Your task to perform on an android device: turn off airplane mode Image 0: 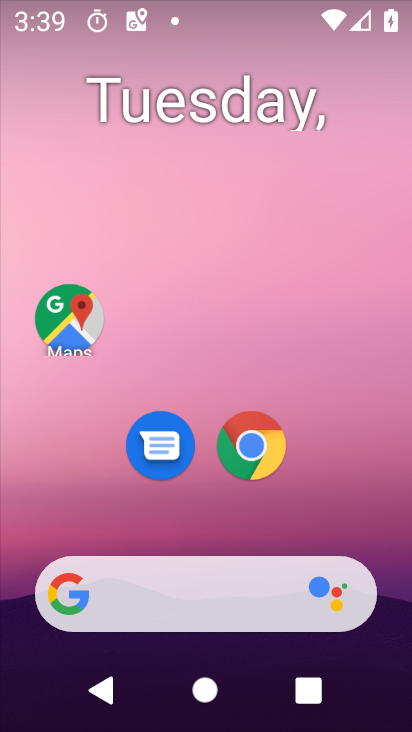
Step 0: drag from (204, 543) to (193, 18)
Your task to perform on an android device: turn off airplane mode Image 1: 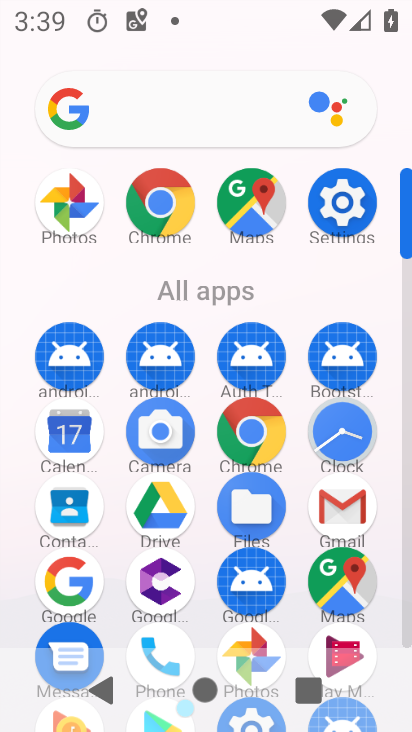
Step 1: click (333, 198)
Your task to perform on an android device: turn off airplane mode Image 2: 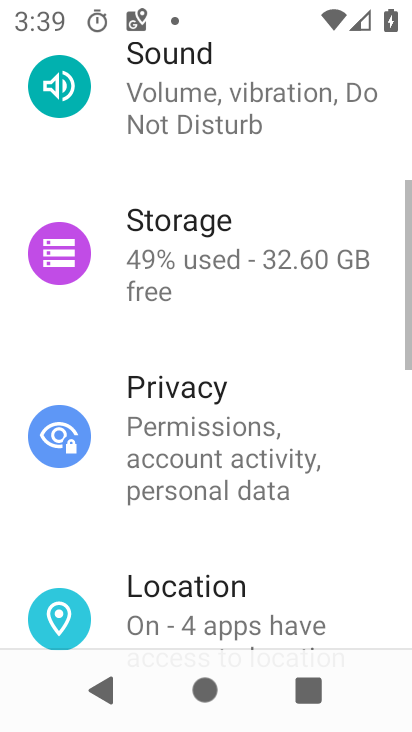
Step 2: drag from (349, 187) to (294, 600)
Your task to perform on an android device: turn off airplane mode Image 3: 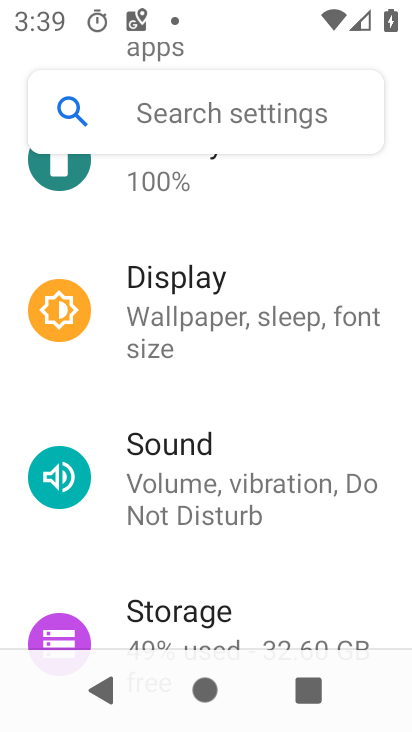
Step 3: drag from (215, 236) to (163, 684)
Your task to perform on an android device: turn off airplane mode Image 4: 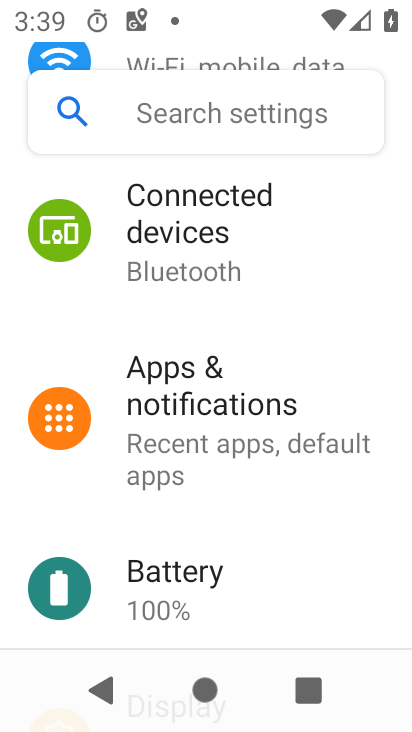
Step 4: drag from (205, 286) to (167, 575)
Your task to perform on an android device: turn off airplane mode Image 5: 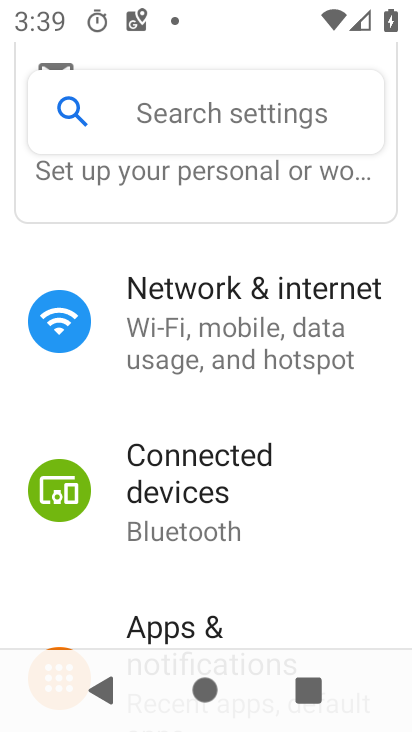
Step 5: click (219, 347)
Your task to perform on an android device: turn off airplane mode Image 6: 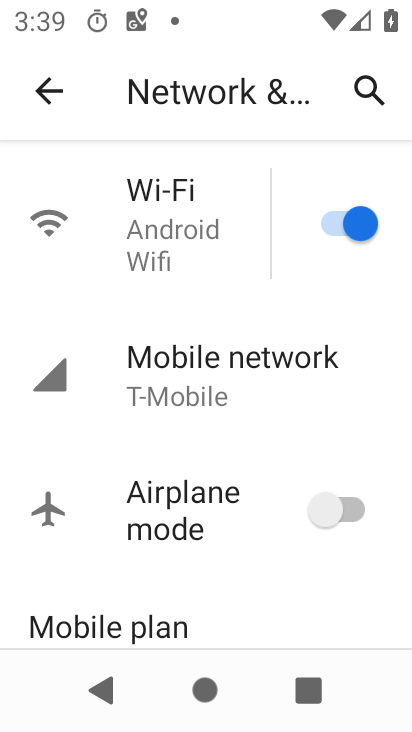
Step 6: click (327, 510)
Your task to perform on an android device: turn off airplane mode Image 7: 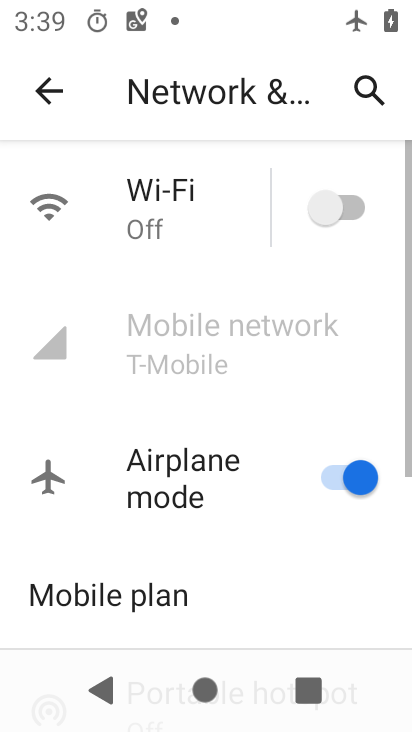
Step 7: task complete